Your task to perform on an android device: Go to Android settings Image 0: 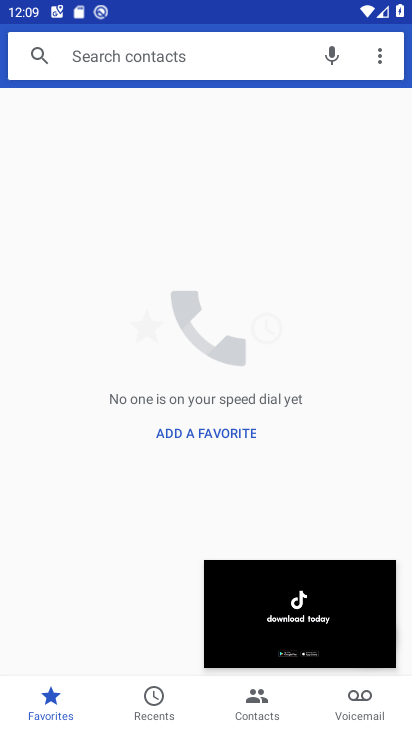
Step 0: press home button
Your task to perform on an android device: Go to Android settings Image 1: 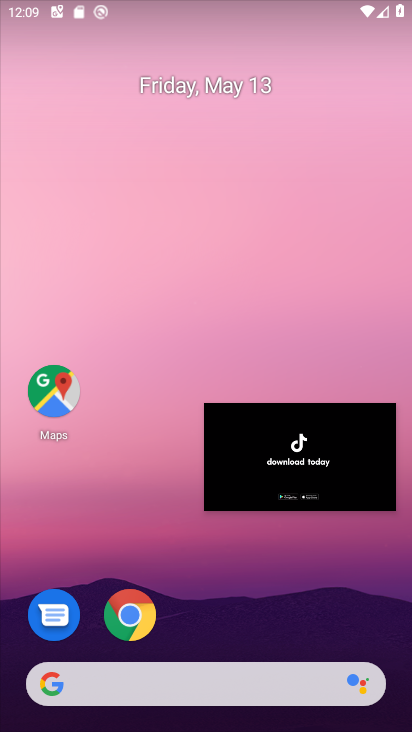
Step 1: drag from (241, 625) to (258, 25)
Your task to perform on an android device: Go to Android settings Image 2: 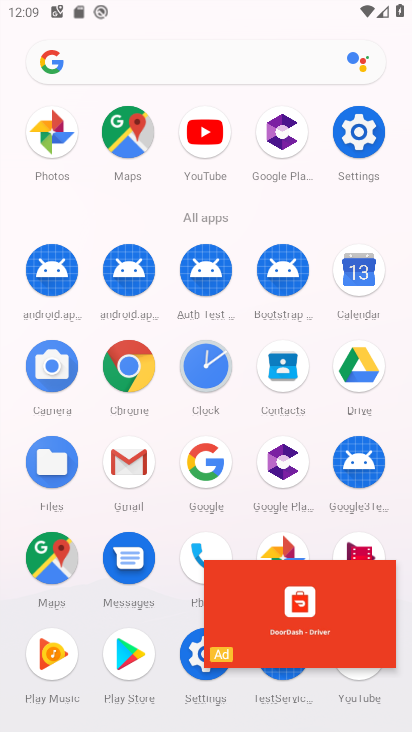
Step 2: click (354, 132)
Your task to perform on an android device: Go to Android settings Image 3: 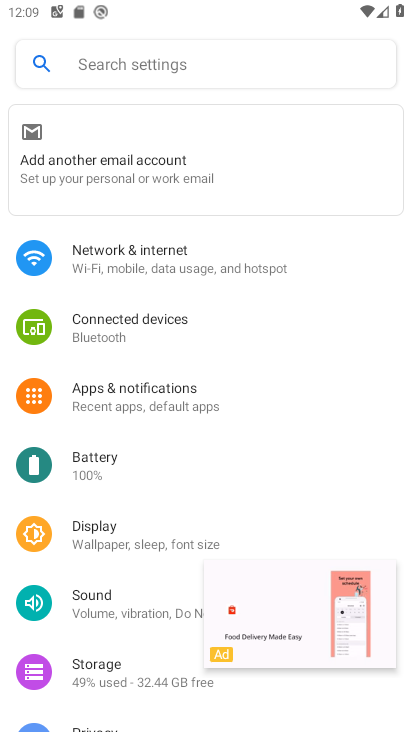
Step 3: drag from (96, 641) to (161, 176)
Your task to perform on an android device: Go to Android settings Image 4: 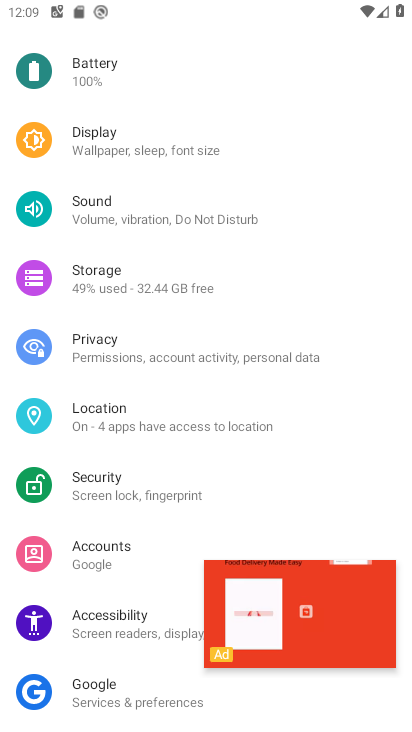
Step 4: drag from (89, 686) to (197, 126)
Your task to perform on an android device: Go to Android settings Image 5: 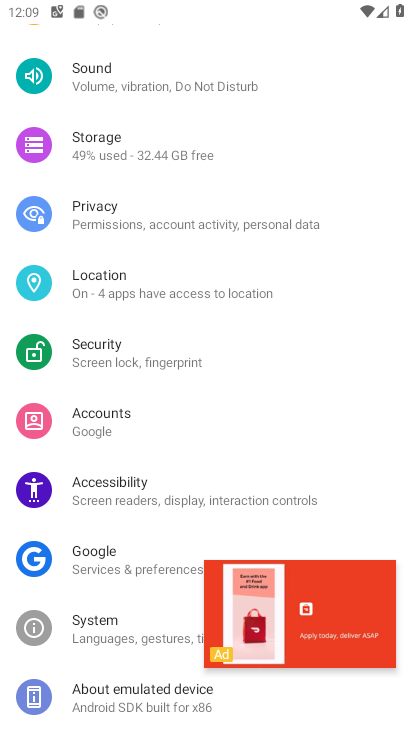
Step 5: click (84, 622)
Your task to perform on an android device: Go to Android settings Image 6: 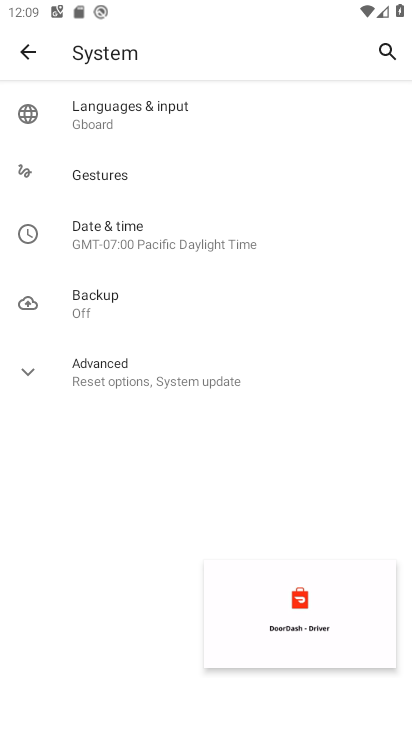
Step 6: task complete